Your task to perform on an android device: Show the shopping cart on ebay.com. Add razer nari to the cart on ebay.com, then select checkout. Image 0: 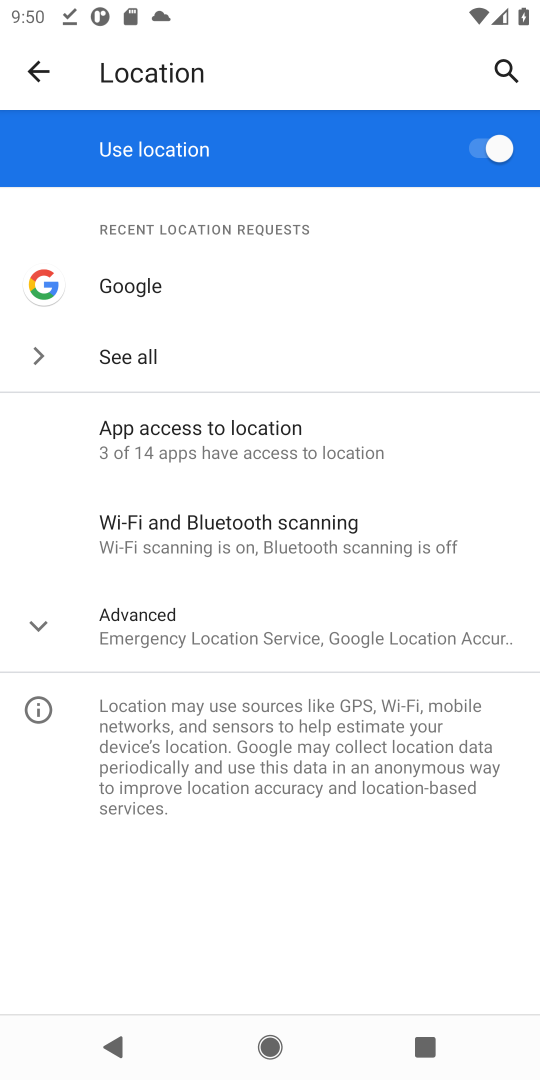
Step 0: press home button
Your task to perform on an android device: Show the shopping cart on ebay.com. Add razer nari to the cart on ebay.com, then select checkout. Image 1: 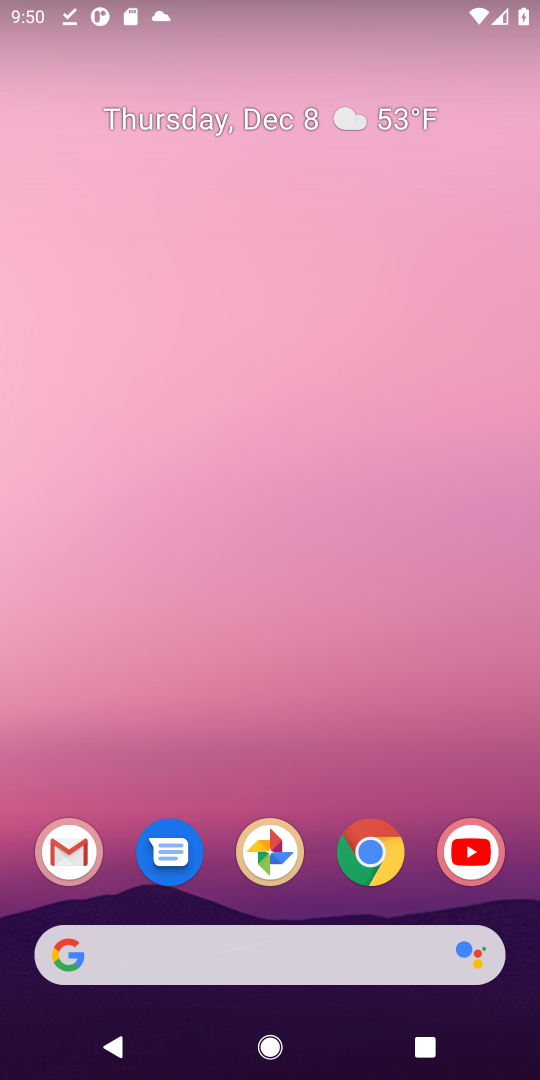
Step 1: click (302, 955)
Your task to perform on an android device: Show the shopping cart on ebay.com. Add razer nari to the cart on ebay.com, then select checkout. Image 2: 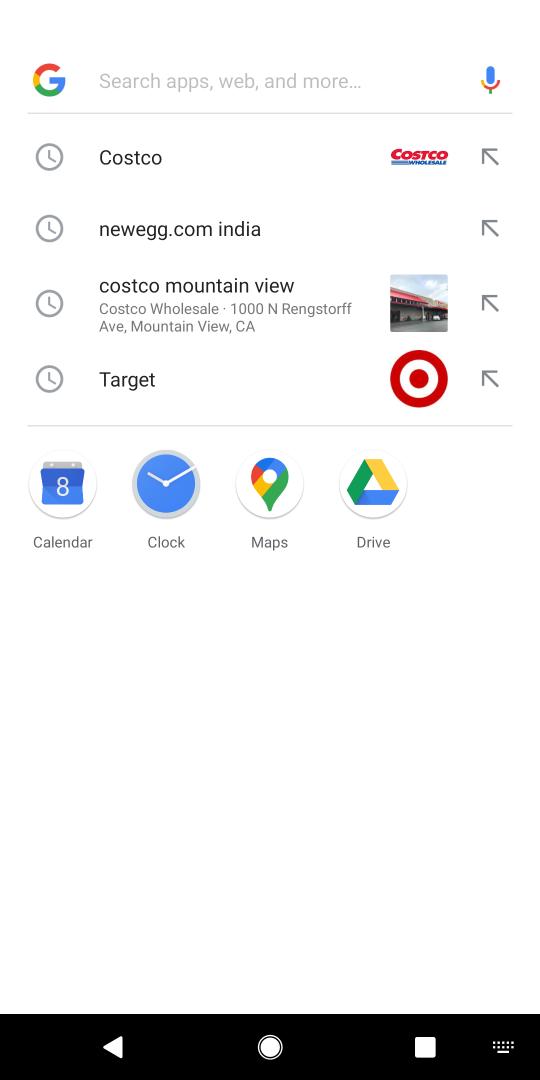
Step 2: type "ebay"
Your task to perform on an android device: Show the shopping cart on ebay.com. Add razer nari to the cart on ebay.com, then select checkout. Image 3: 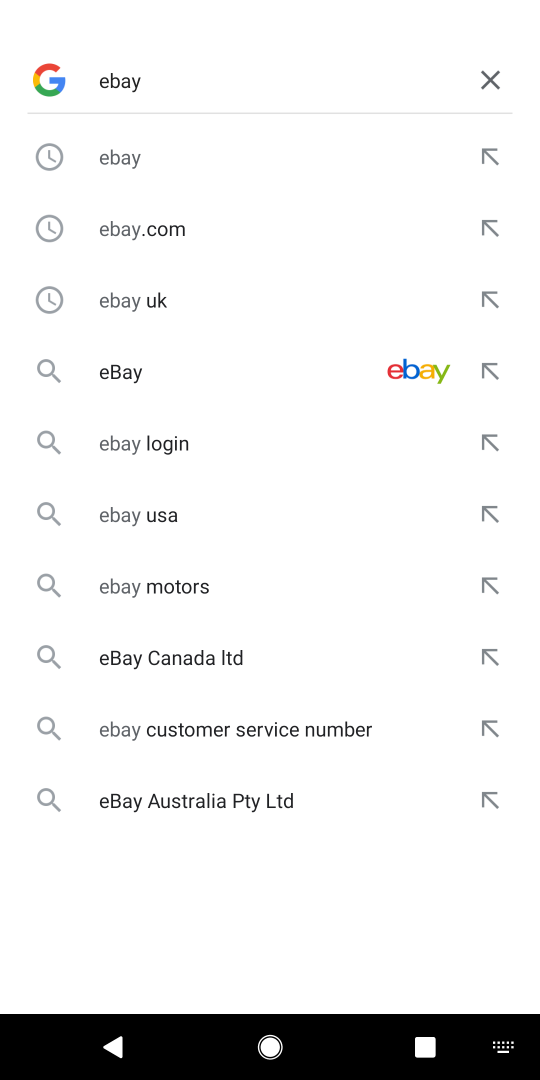
Step 3: click (367, 374)
Your task to perform on an android device: Show the shopping cart on ebay.com. Add razer nari to the cart on ebay.com, then select checkout. Image 4: 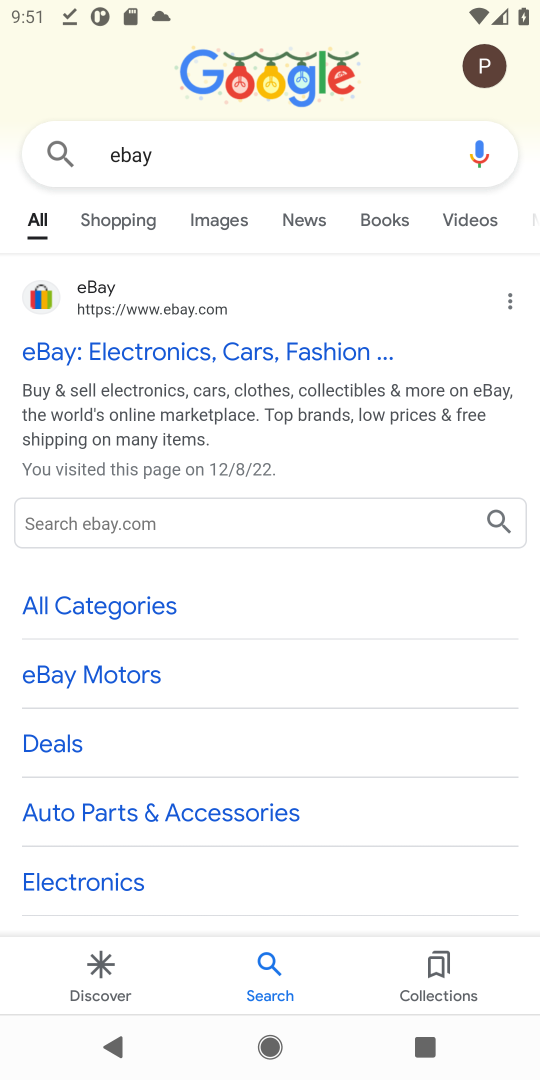
Step 4: click (319, 373)
Your task to perform on an android device: Show the shopping cart on ebay.com. Add razer nari to the cart on ebay.com, then select checkout. Image 5: 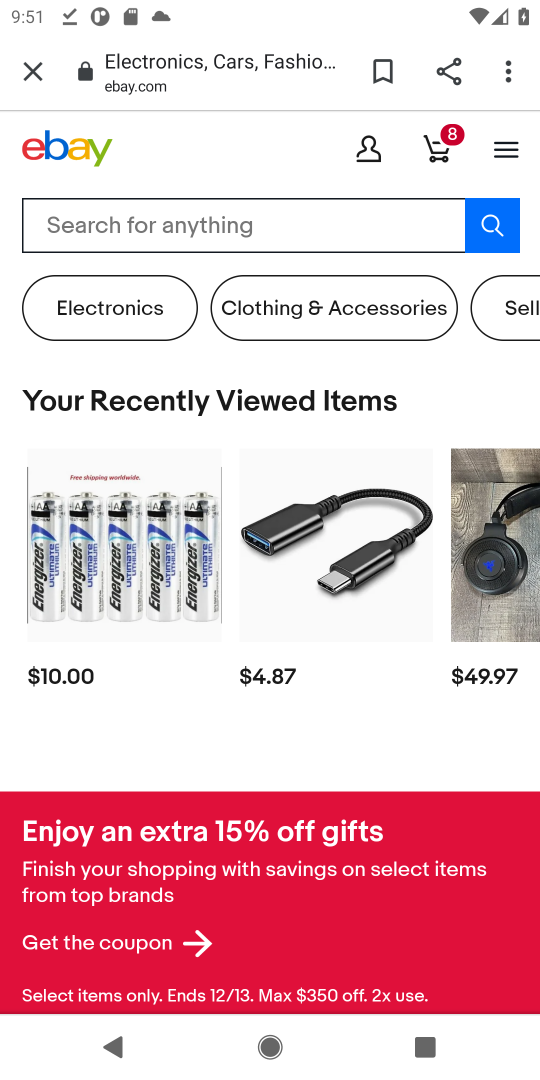
Step 5: click (170, 222)
Your task to perform on an android device: Show the shopping cart on ebay.com. Add razer nari to the cart on ebay.com, then select checkout. Image 6: 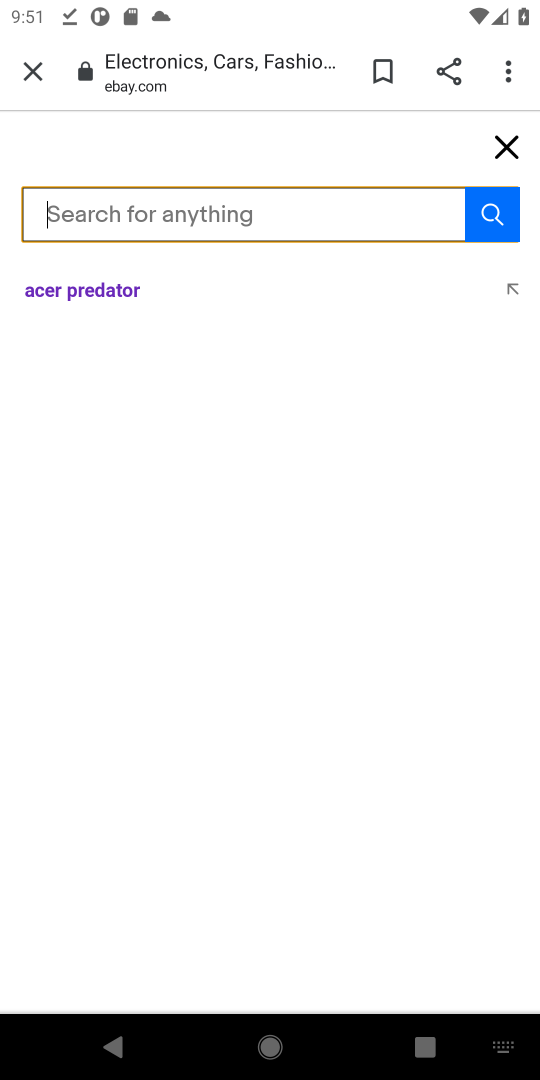
Step 6: type "razer nari"
Your task to perform on an android device: Show the shopping cart on ebay.com. Add razer nari to the cart on ebay.com, then select checkout. Image 7: 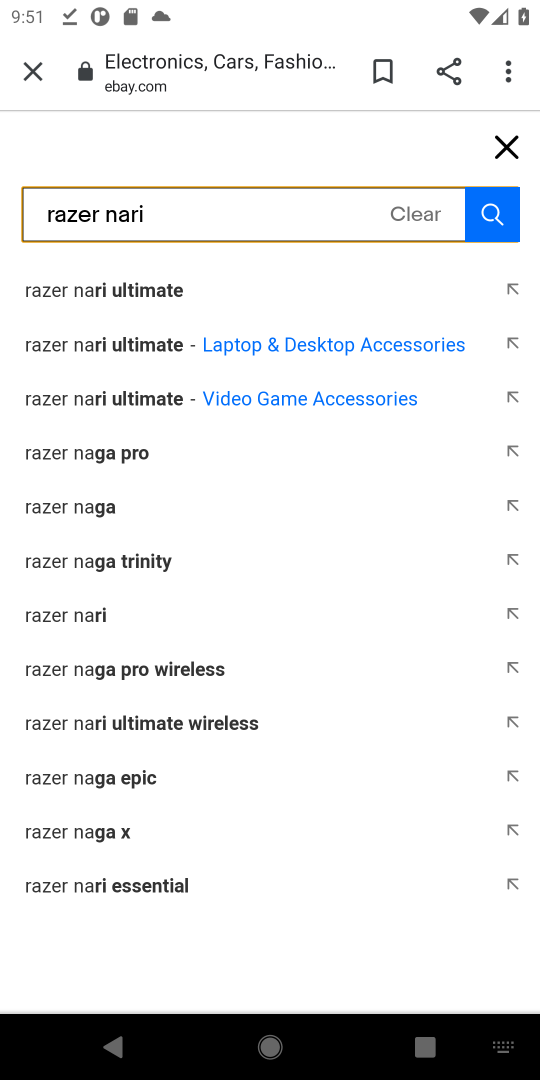
Step 7: click (491, 241)
Your task to perform on an android device: Show the shopping cart on ebay.com. Add razer nari to the cart on ebay.com, then select checkout. Image 8: 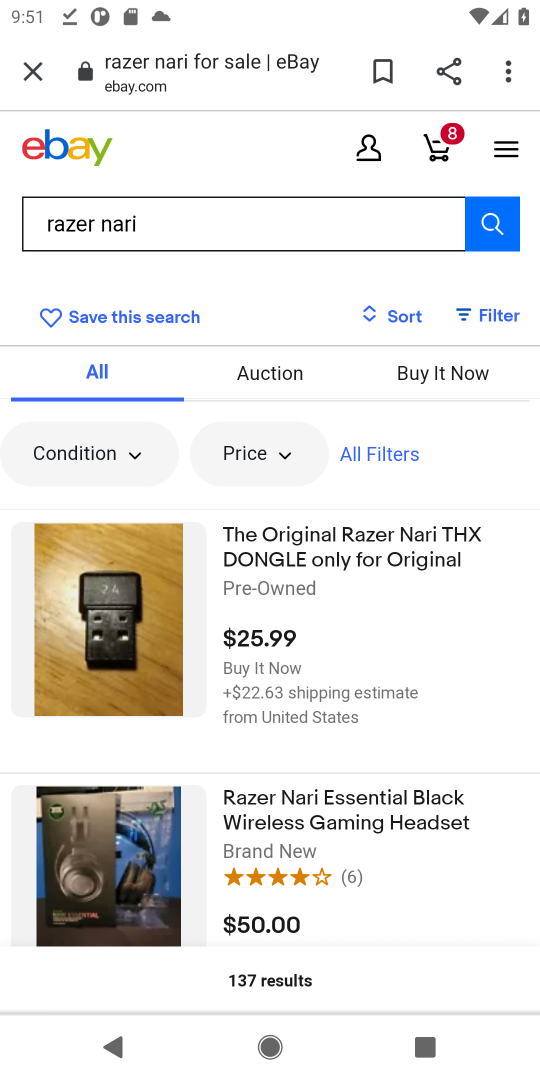
Step 8: click (291, 583)
Your task to perform on an android device: Show the shopping cart on ebay.com. Add razer nari to the cart on ebay.com, then select checkout. Image 9: 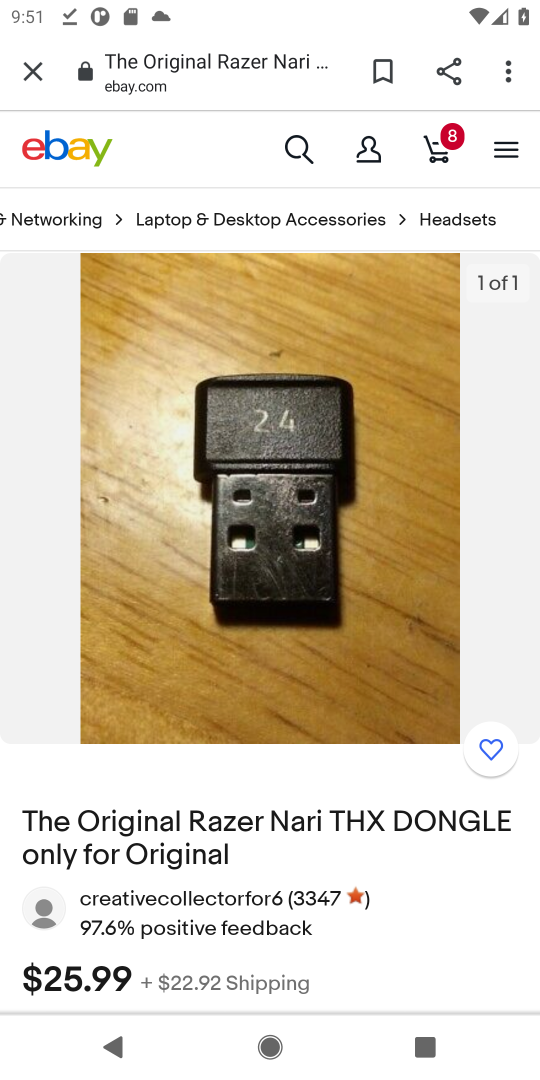
Step 9: drag from (215, 890) to (227, 351)
Your task to perform on an android device: Show the shopping cart on ebay.com. Add razer nari to the cart on ebay.com, then select checkout. Image 10: 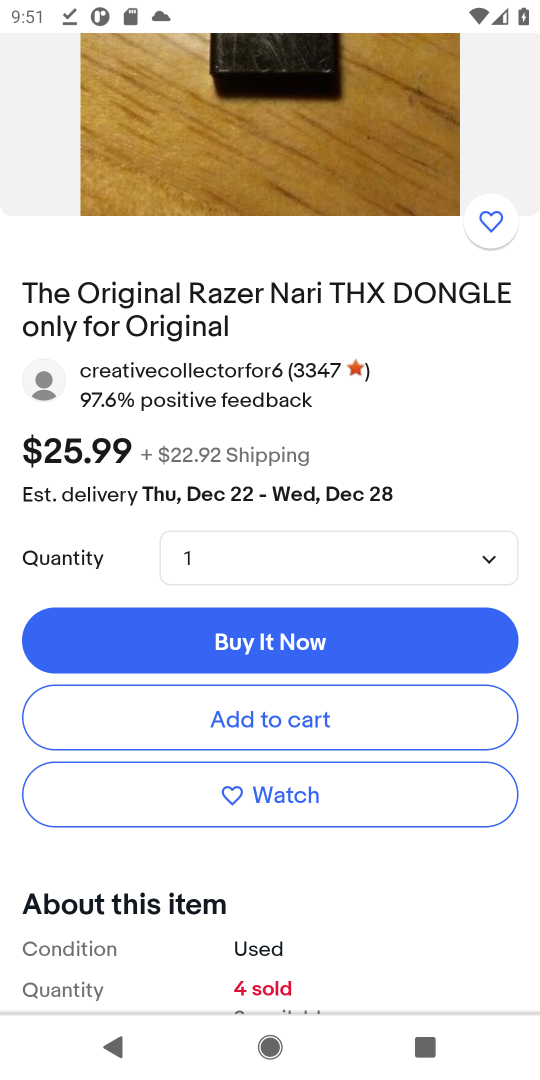
Step 10: click (277, 729)
Your task to perform on an android device: Show the shopping cart on ebay.com. Add razer nari to the cart on ebay.com, then select checkout. Image 11: 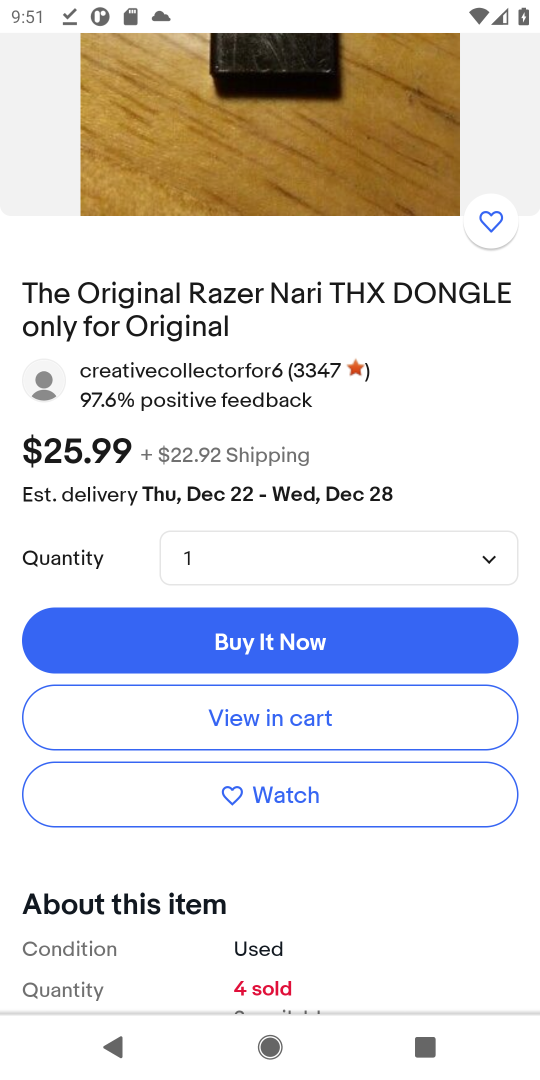
Step 11: task complete